Your task to perform on an android device: change notification settings in the gmail app Image 0: 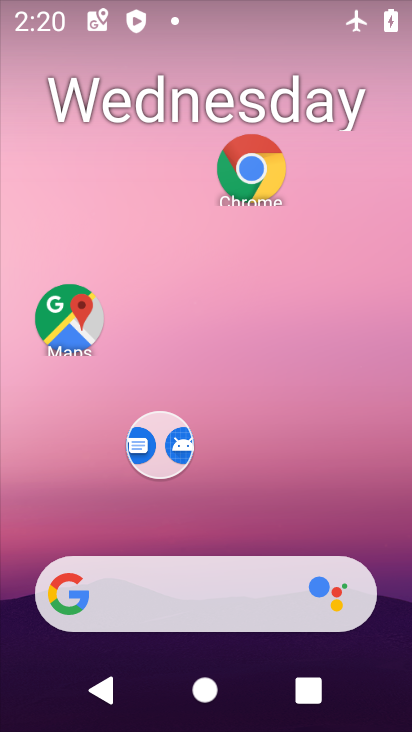
Step 0: drag from (234, 541) to (210, 3)
Your task to perform on an android device: change notification settings in the gmail app Image 1: 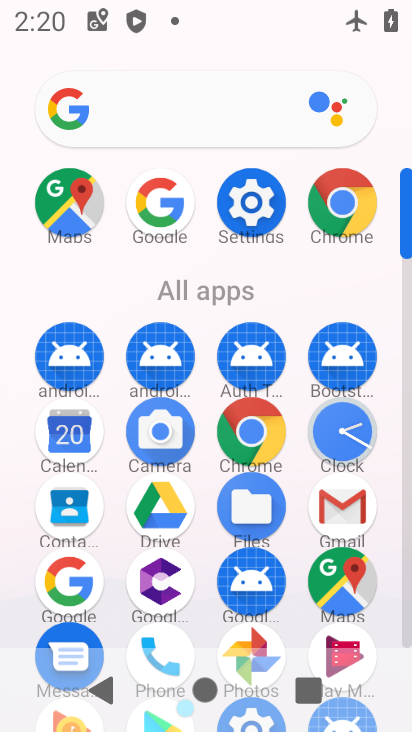
Step 1: click (337, 525)
Your task to perform on an android device: change notification settings in the gmail app Image 2: 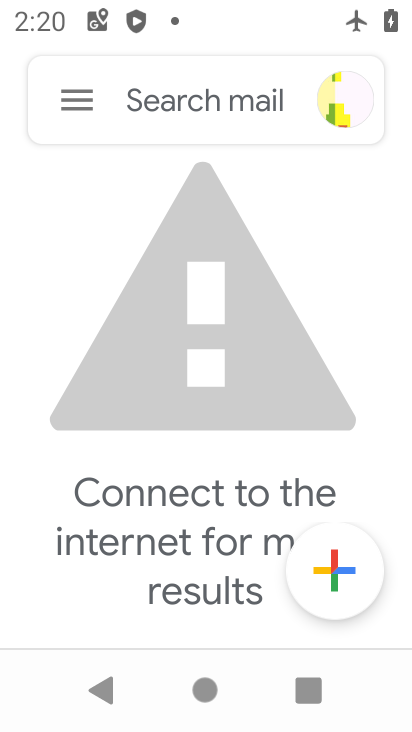
Step 2: click (54, 97)
Your task to perform on an android device: change notification settings in the gmail app Image 3: 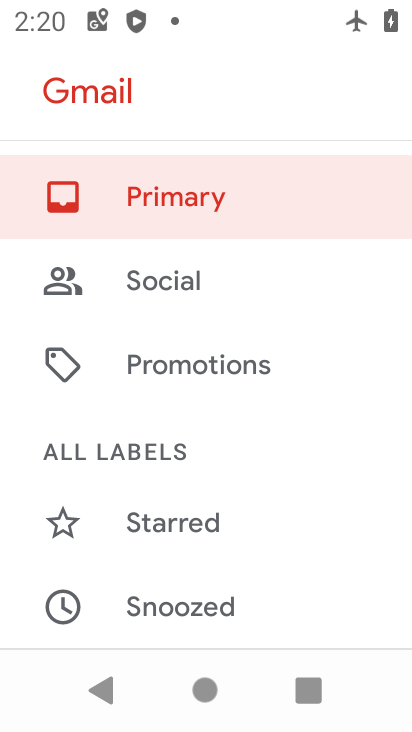
Step 3: drag from (202, 373) to (180, 68)
Your task to perform on an android device: change notification settings in the gmail app Image 4: 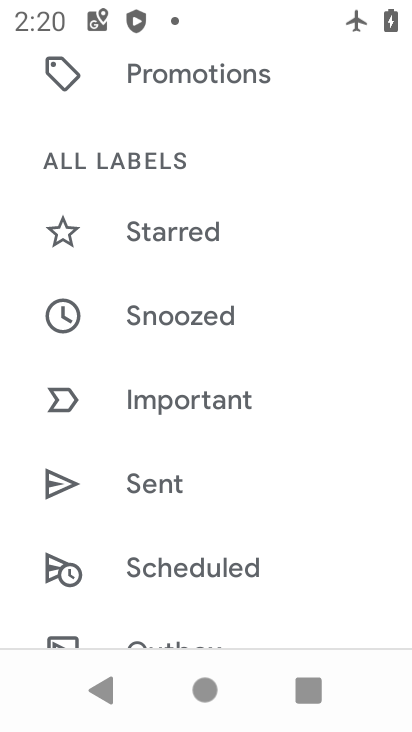
Step 4: drag from (266, 395) to (297, 98)
Your task to perform on an android device: change notification settings in the gmail app Image 5: 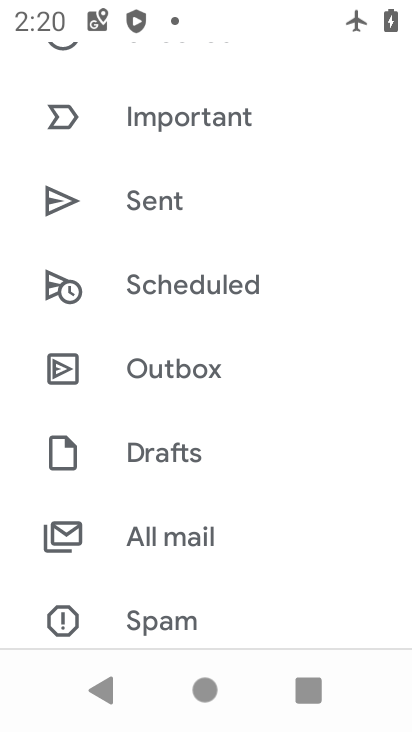
Step 5: drag from (330, 264) to (346, 56)
Your task to perform on an android device: change notification settings in the gmail app Image 6: 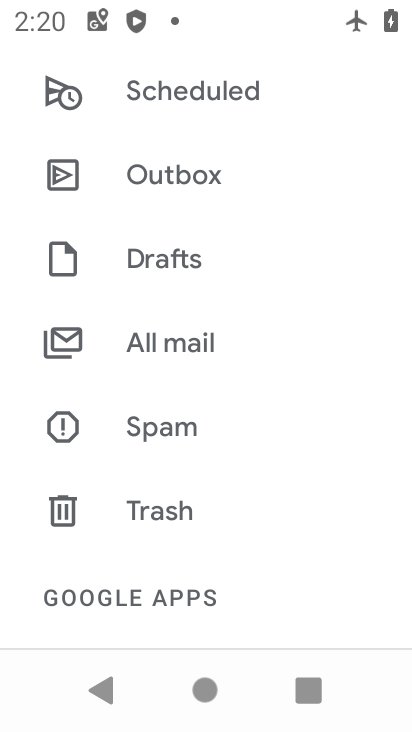
Step 6: drag from (314, 327) to (332, 3)
Your task to perform on an android device: change notification settings in the gmail app Image 7: 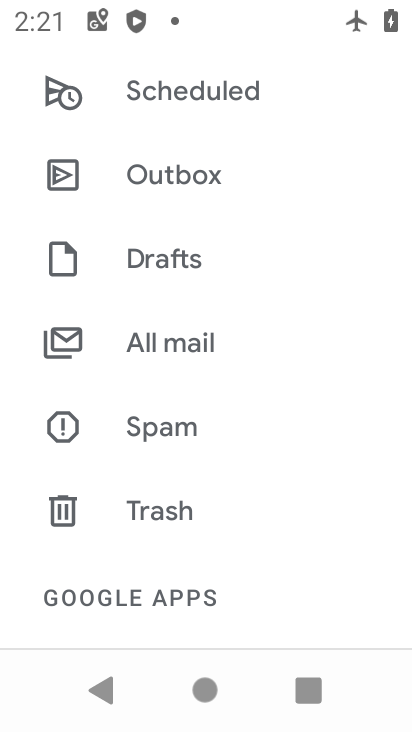
Step 7: drag from (306, 451) to (246, 0)
Your task to perform on an android device: change notification settings in the gmail app Image 8: 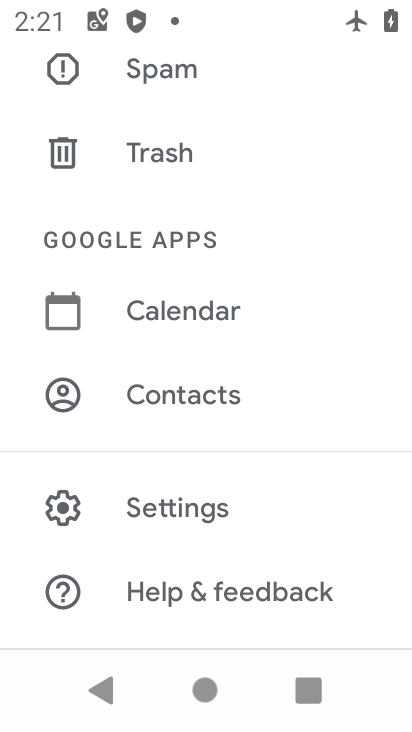
Step 8: click (181, 518)
Your task to perform on an android device: change notification settings in the gmail app Image 9: 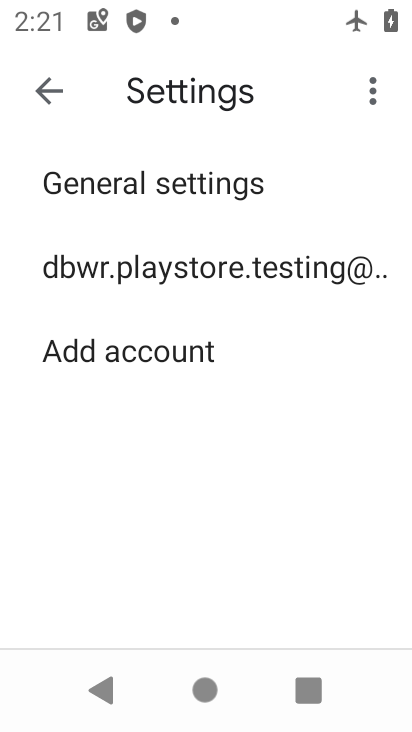
Step 9: click (117, 185)
Your task to perform on an android device: change notification settings in the gmail app Image 10: 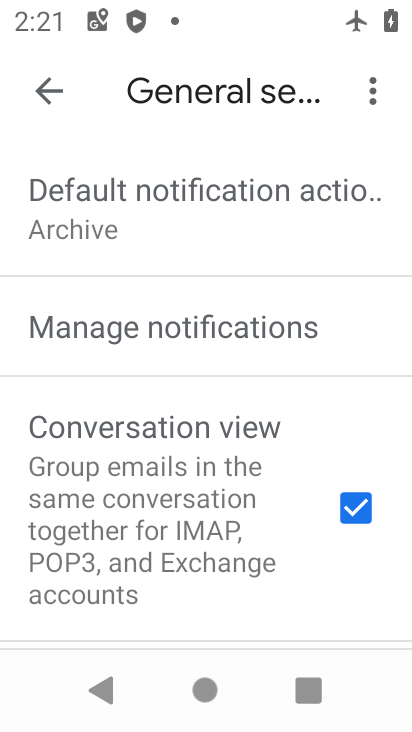
Step 10: click (332, 315)
Your task to perform on an android device: change notification settings in the gmail app Image 11: 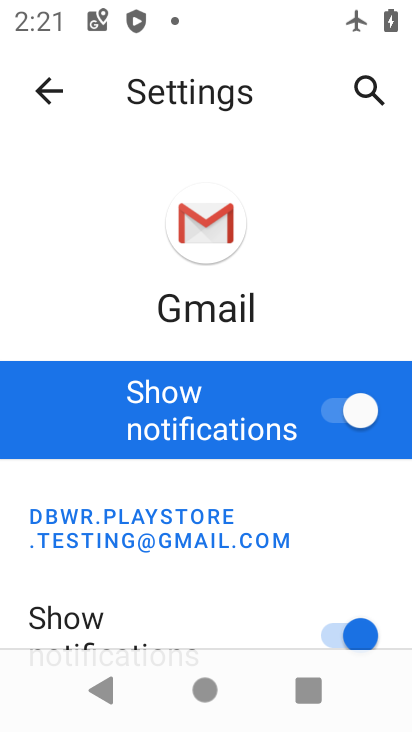
Step 11: click (324, 411)
Your task to perform on an android device: change notification settings in the gmail app Image 12: 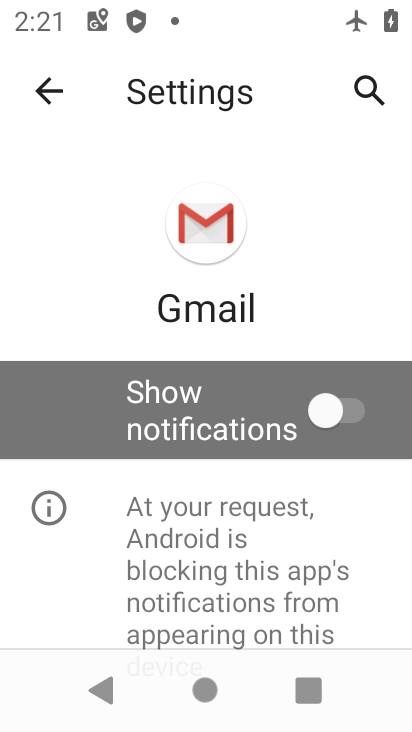
Step 12: task complete